Your task to perform on an android device: turn on wifi Image 0: 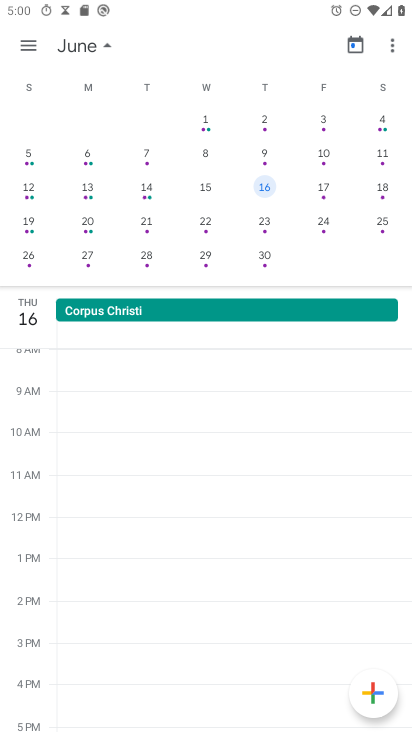
Step 0: press home button
Your task to perform on an android device: turn on wifi Image 1: 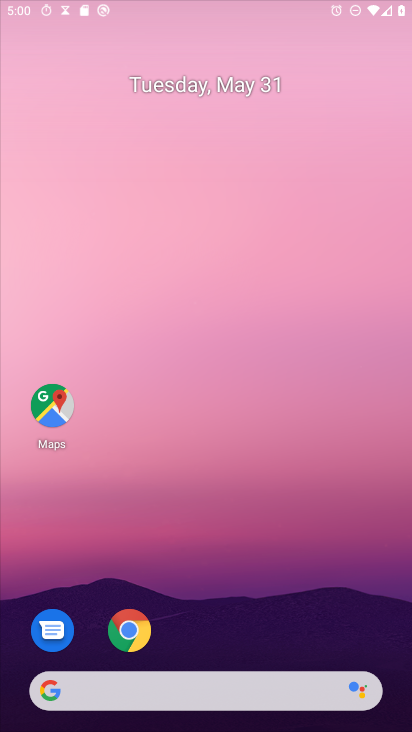
Step 1: drag from (322, 596) to (333, 51)
Your task to perform on an android device: turn on wifi Image 2: 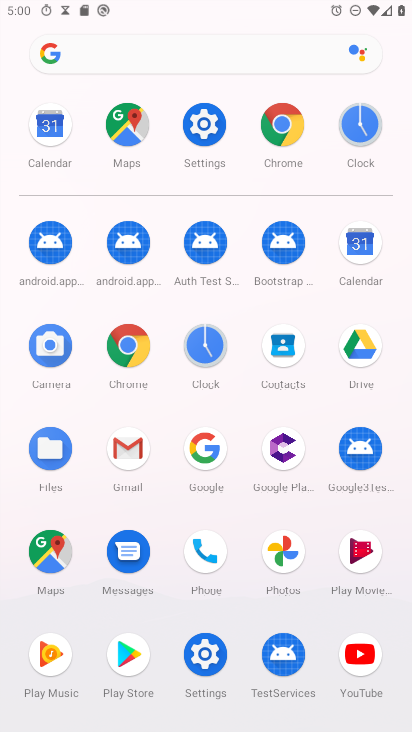
Step 2: click (209, 148)
Your task to perform on an android device: turn on wifi Image 3: 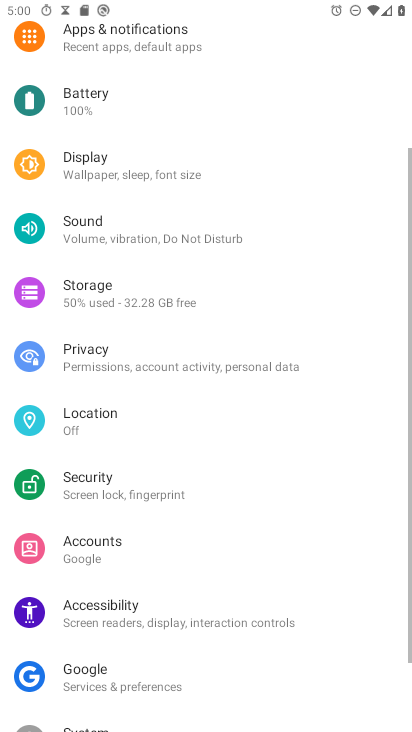
Step 3: drag from (182, 117) to (301, 731)
Your task to perform on an android device: turn on wifi Image 4: 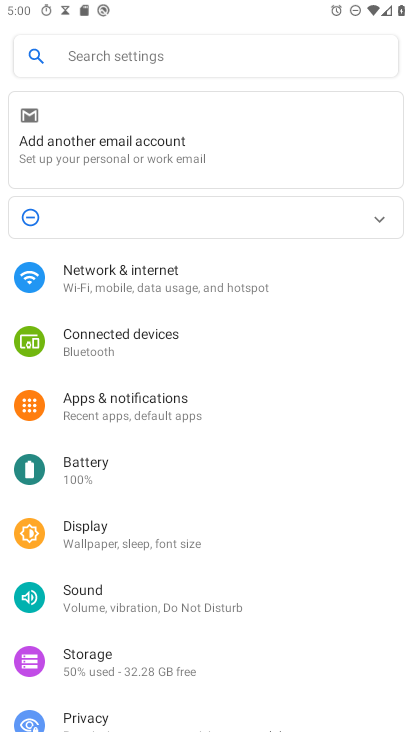
Step 4: click (257, 270)
Your task to perform on an android device: turn on wifi Image 5: 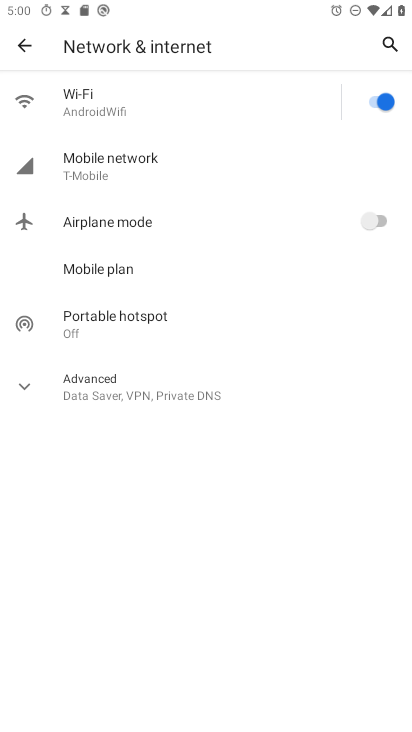
Step 5: task complete